Your task to perform on an android device: Open Chrome and go to settings Image 0: 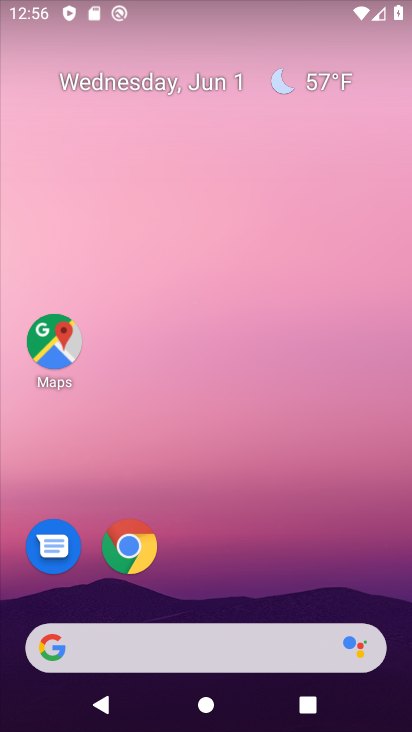
Step 0: click (138, 552)
Your task to perform on an android device: Open Chrome and go to settings Image 1: 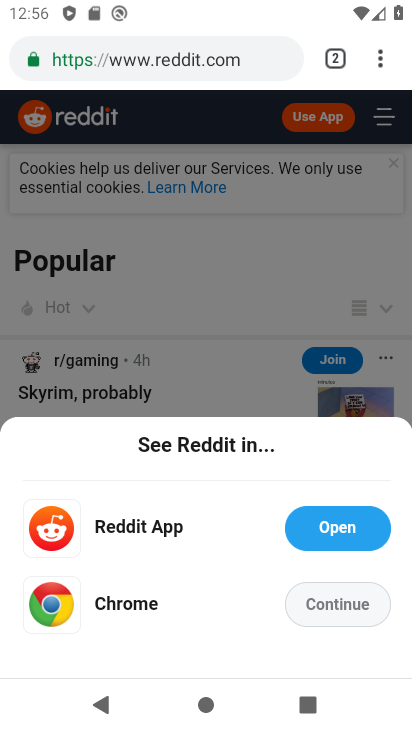
Step 1: click (349, 604)
Your task to perform on an android device: Open Chrome and go to settings Image 2: 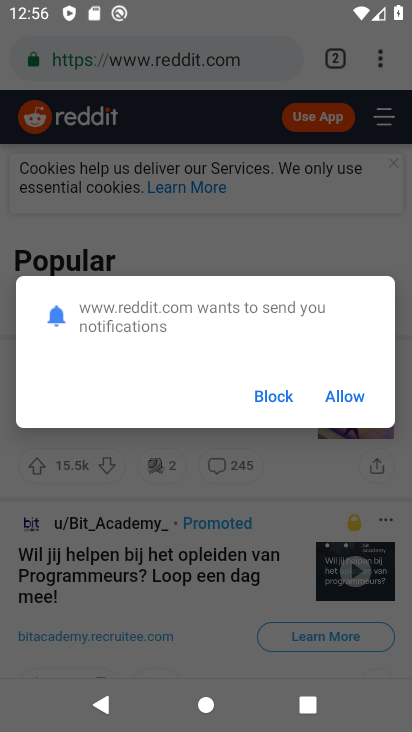
Step 2: click (345, 404)
Your task to perform on an android device: Open Chrome and go to settings Image 3: 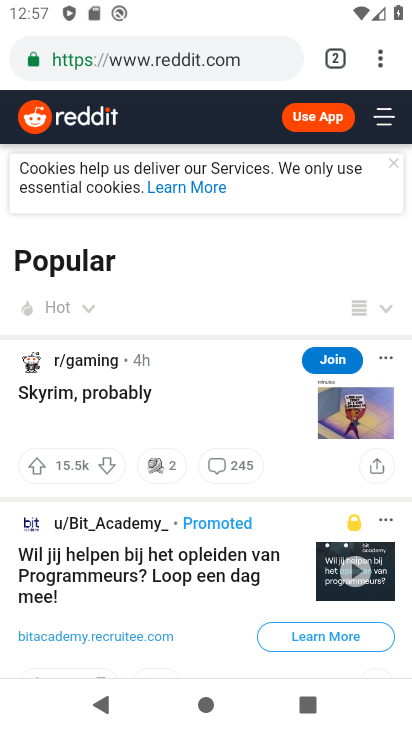
Step 3: click (378, 65)
Your task to perform on an android device: Open Chrome and go to settings Image 4: 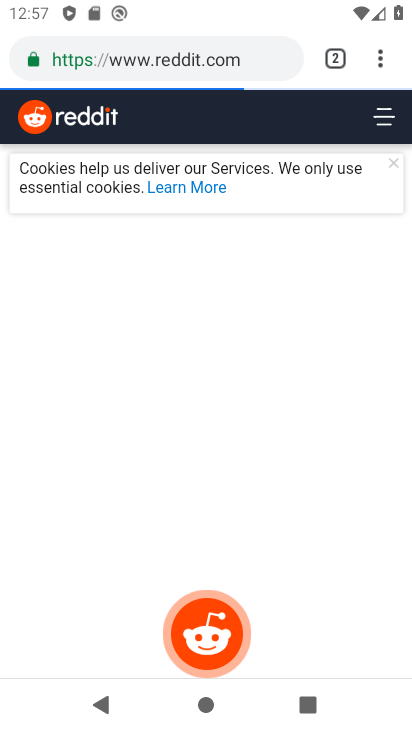
Step 4: task complete